Your task to perform on an android device: turn on notifications settings in the gmail app Image 0: 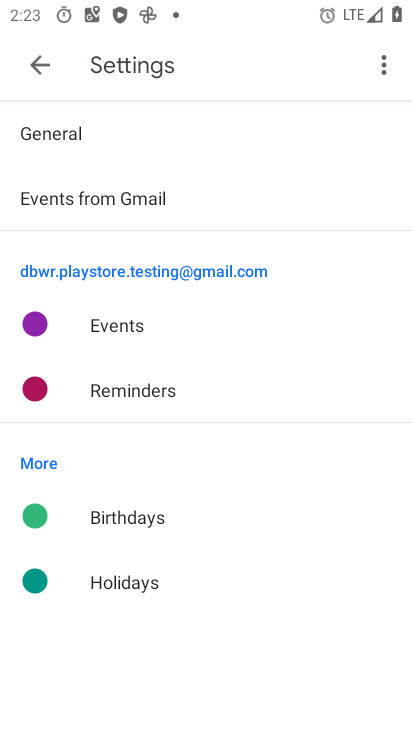
Step 0: press home button
Your task to perform on an android device: turn on notifications settings in the gmail app Image 1: 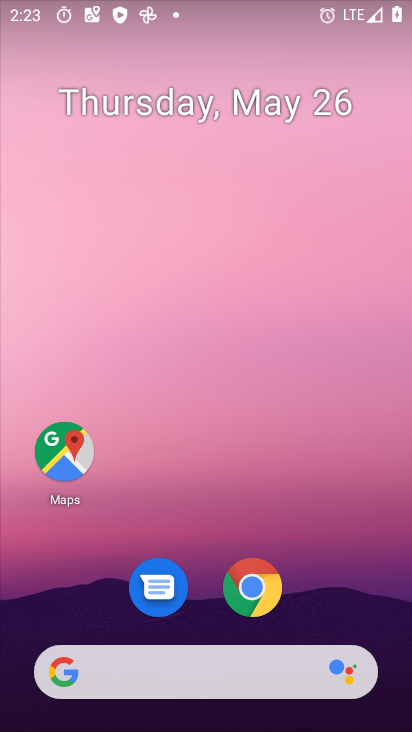
Step 1: drag from (370, 618) to (359, 160)
Your task to perform on an android device: turn on notifications settings in the gmail app Image 2: 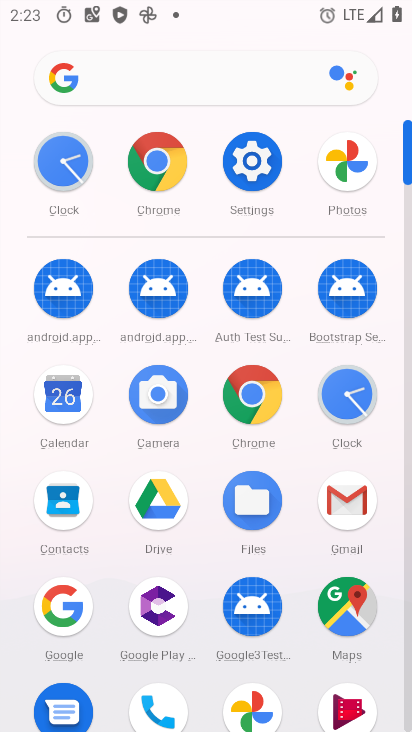
Step 2: click (357, 515)
Your task to perform on an android device: turn on notifications settings in the gmail app Image 3: 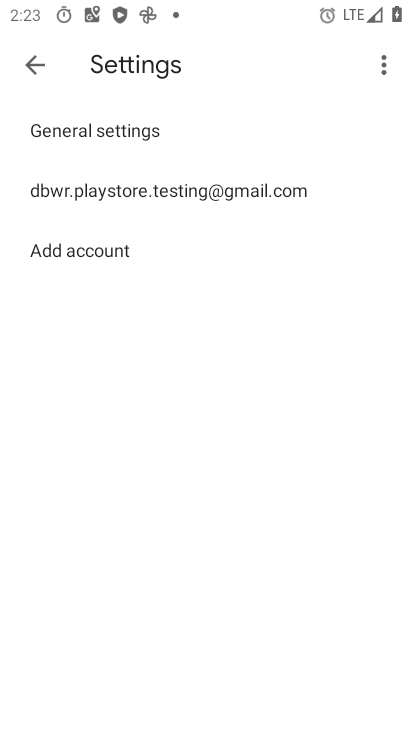
Step 3: click (203, 195)
Your task to perform on an android device: turn on notifications settings in the gmail app Image 4: 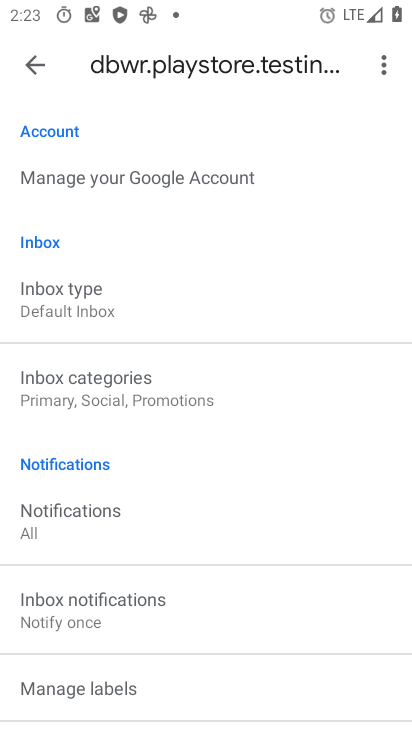
Step 4: drag from (341, 567) to (331, 459)
Your task to perform on an android device: turn on notifications settings in the gmail app Image 5: 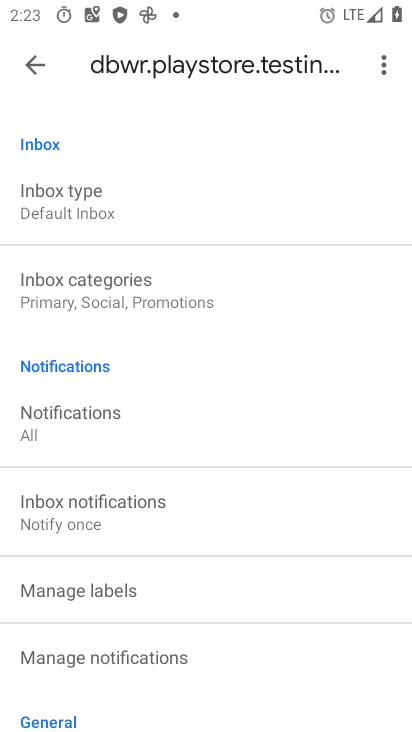
Step 5: drag from (331, 561) to (338, 465)
Your task to perform on an android device: turn on notifications settings in the gmail app Image 6: 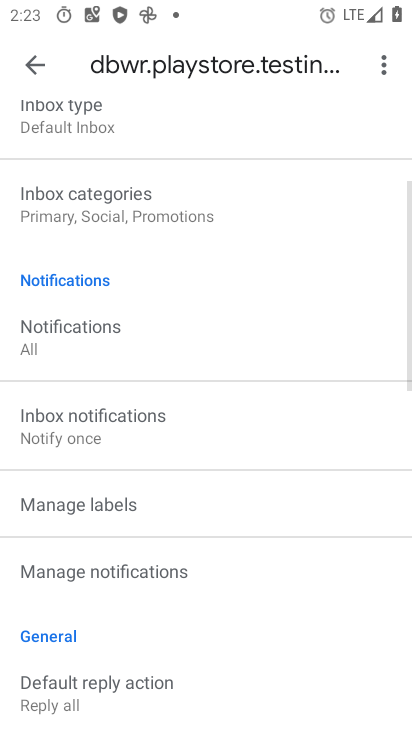
Step 6: drag from (325, 571) to (326, 429)
Your task to perform on an android device: turn on notifications settings in the gmail app Image 7: 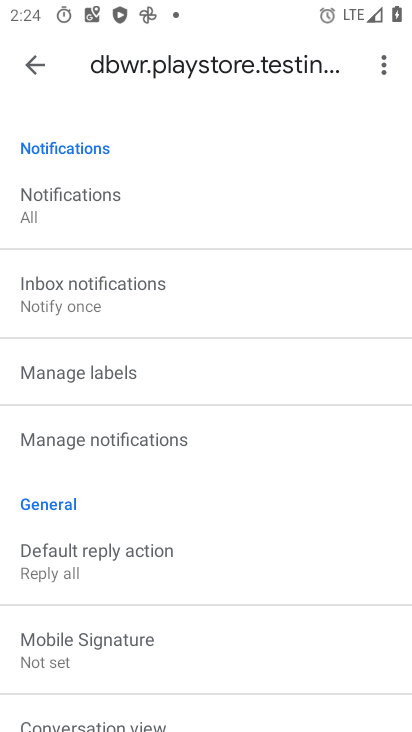
Step 7: drag from (324, 629) to (326, 491)
Your task to perform on an android device: turn on notifications settings in the gmail app Image 8: 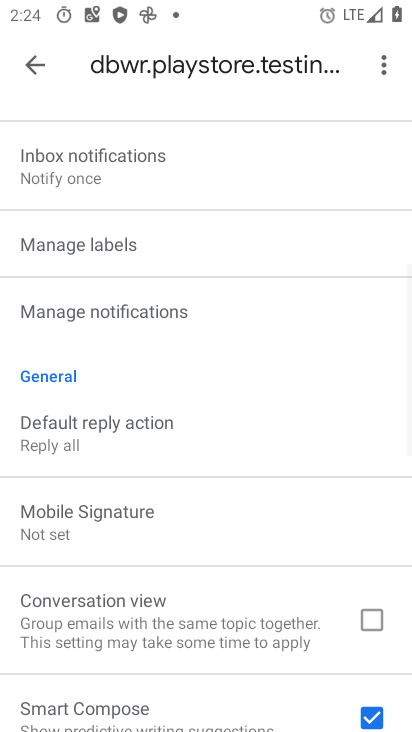
Step 8: drag from (317, 641) to (315, 490)
Your task to perform on an android device: turn on notifications settings in the gmail app Image 9: 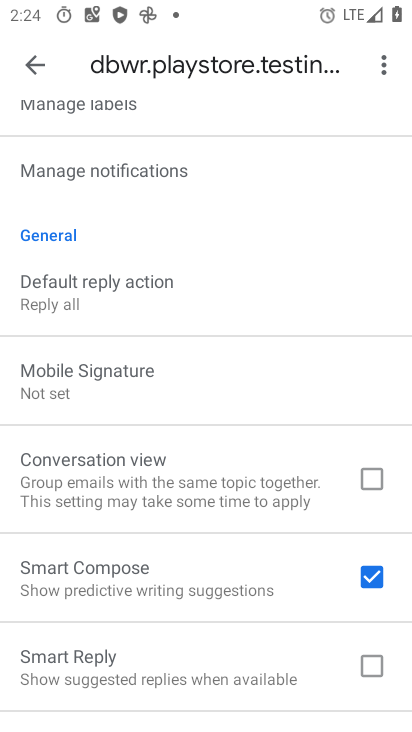
Step 9: drag from (299, 629) to (306, 519)
Your task to perform on an android device: turn on notifications settings in the gmail app Image 10: 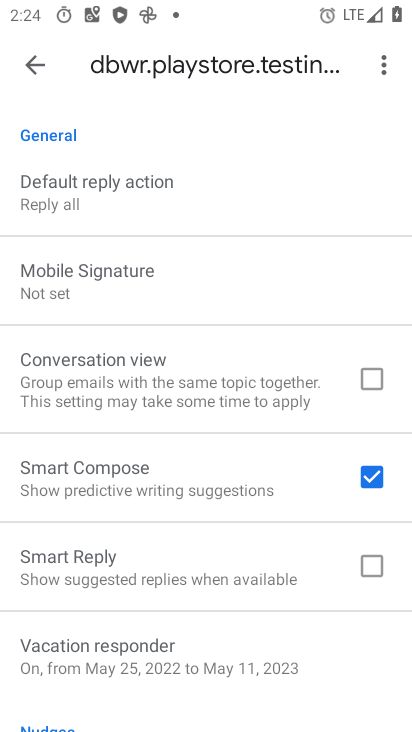
Step 10: drag from (306, 649) to (309, 478)
Your task to perform on an android device: turn on notifications settings in the gmail app Image 11: 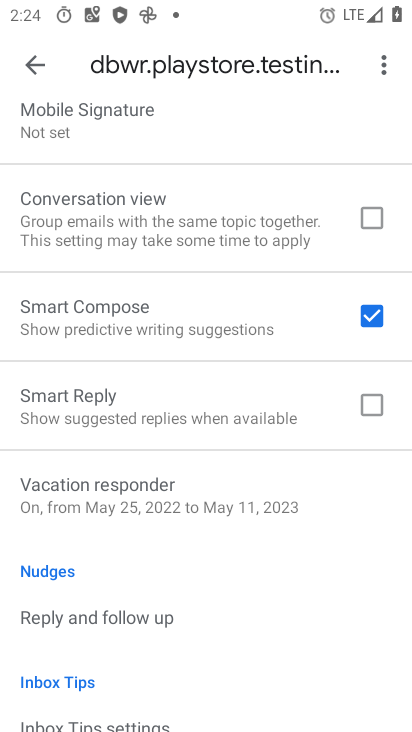
Step 11: drag from (292, 649) to (286, 502)
Your task to perform on an android device: turn on notifications settings in the gmail app Image 12: 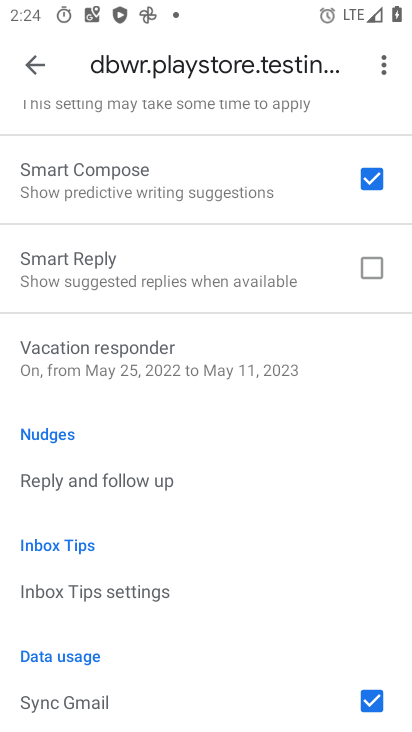
Step 12: drag from (295, 674) to (281, 378)
Your task to perform on an android device: turn on notifications settings in the gmail app Image 13: 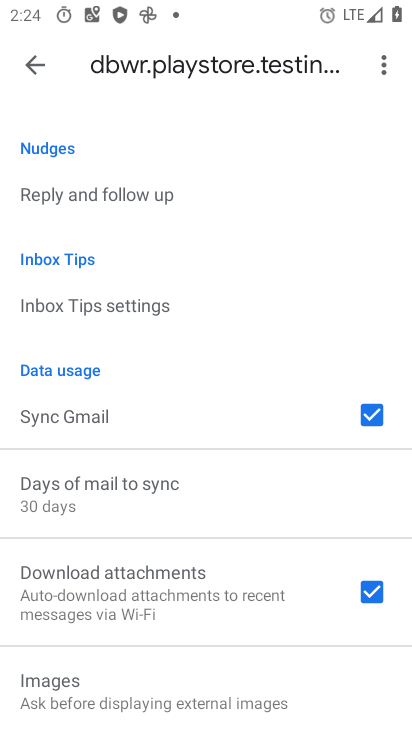
Step 13: drag from (251, 548) to (252, 382)
Your task to perform on an android device: turn on notifications settings in the gmail app Image 14: 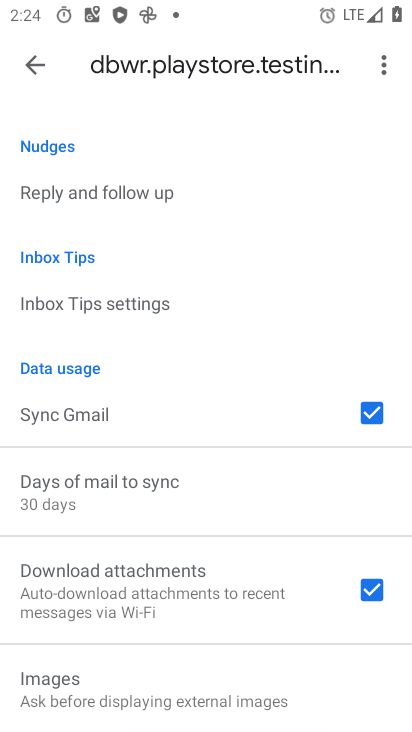
Step 14: drag from (265, 263) to (282, 401)
Your task to perform on an android device: turn on notifications settings in the gmail app Image 15: 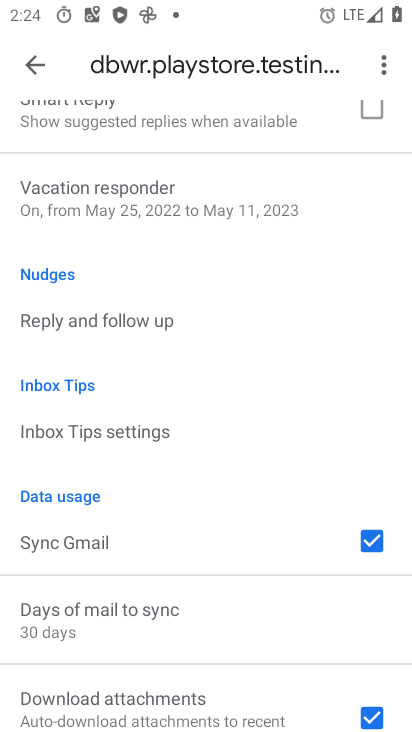
Step 15: drag from (268, 272) to (253, 386)
Your task to perform on an android device: turn on notifications settings in the gmail app Image 16: 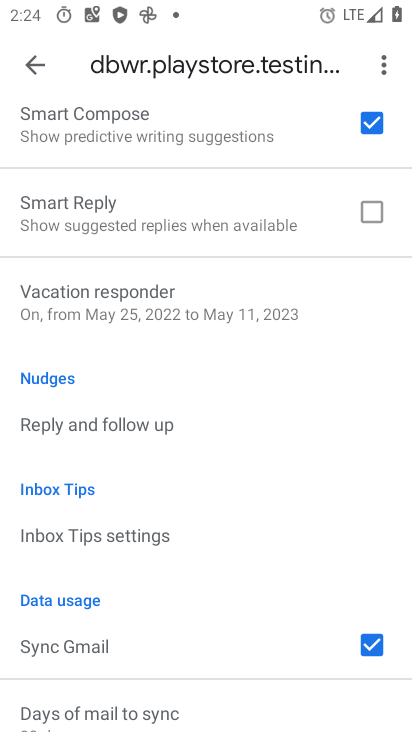
Step 16: drag from (269, 249) to (271, 372)
Your task to perform on an android device: turn on notifications settings in the gmail app Image 17: 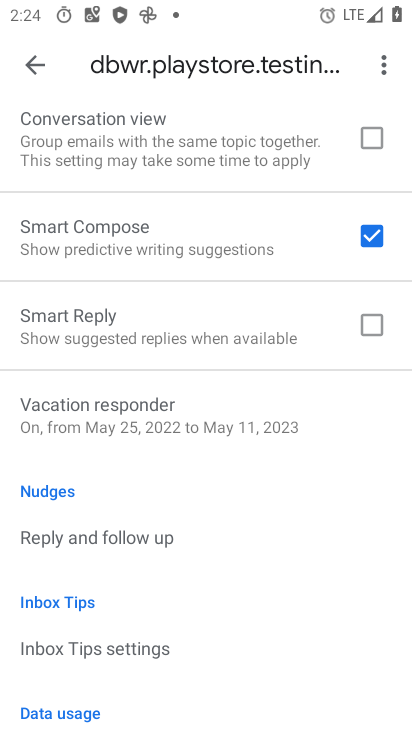
Step 17: drag from (285, 217) to (286, 332)
Your task to perform on an android device: turn on notifications settings in the gmail app Image 18: 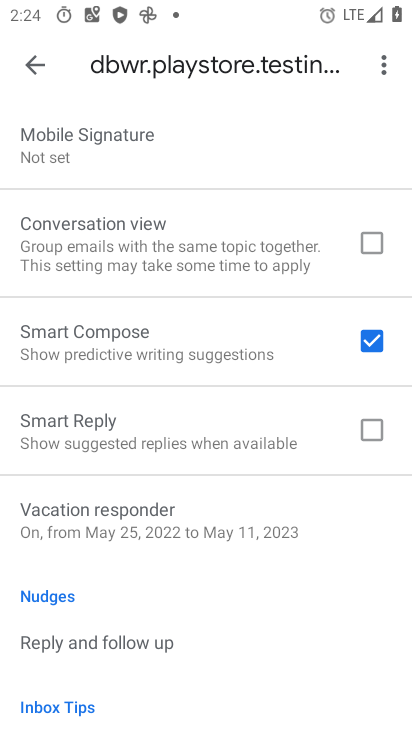
Step 18: drag from (269, 196) to (279, 315)
Your task to perform on an android device: turn on notifications settings in the gmail app Image 19: 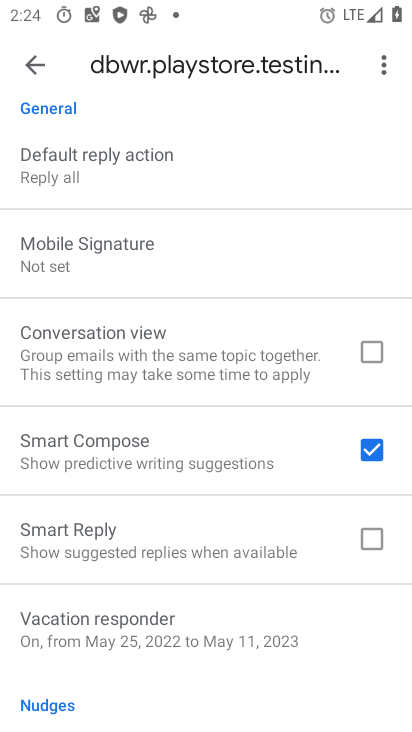
Step 19: drag from (259, 168) to (266, 291)
Your task to perform on an android device: turn on notifications settings in the gmail app Image 20: 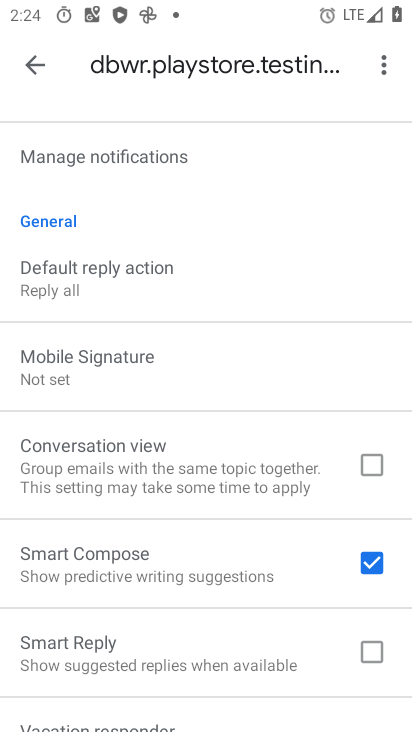
Step 20: drag from (248, 172) to (248, 288)
Your task to perform on an android device: turn on notifications settings in the gmail app Image 21: 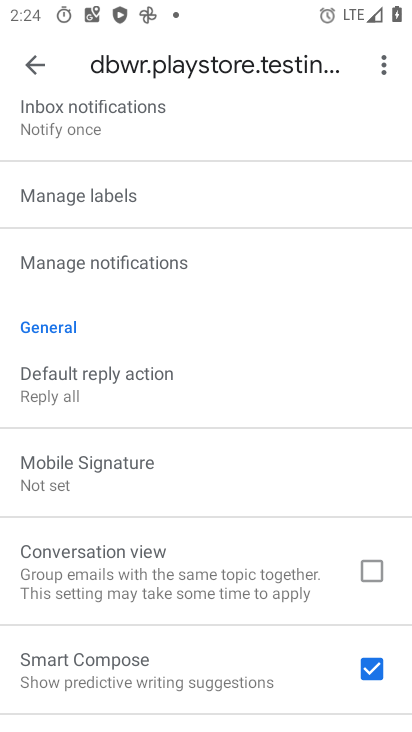
Step 21: drag from (235, 163) to (242, 278)
Your task to perform on an android device: turn on notifications settings in the gmail app Image 22: 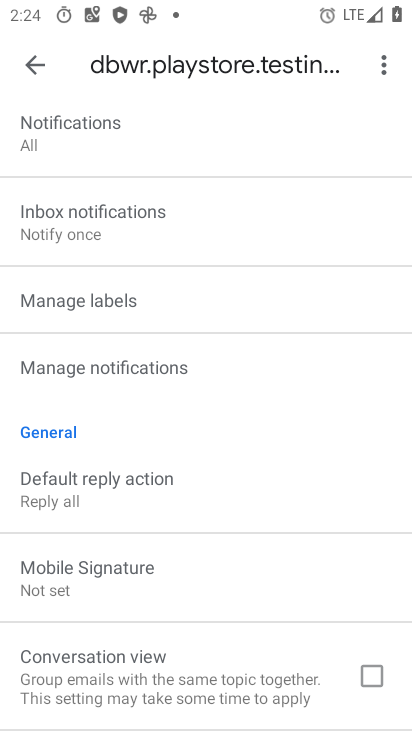
Step 22: click (187, 381)
Your task to perform on an android device: turn on notifications settings in the gmail app Image 23: 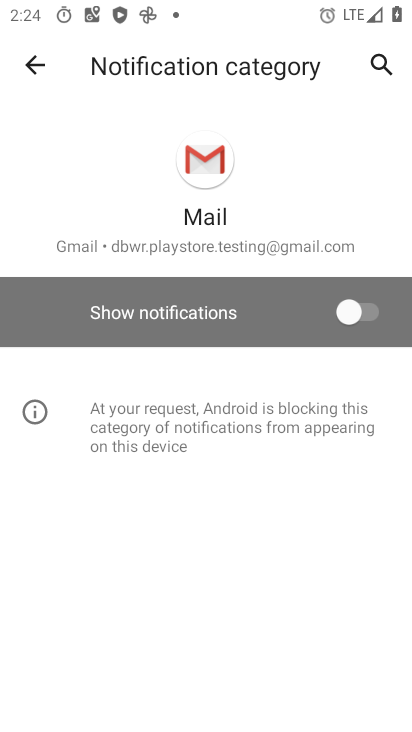
Step 23: click (355, 326)
Your task to perform on an android device: turn on notifications settings in the gmail app Image 24: 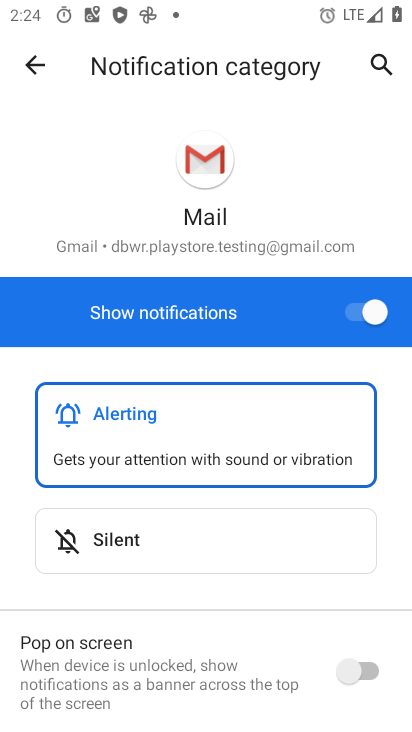
Step 24: task complete